Your task to perform on an android device: When is my next meeting? Image 0: 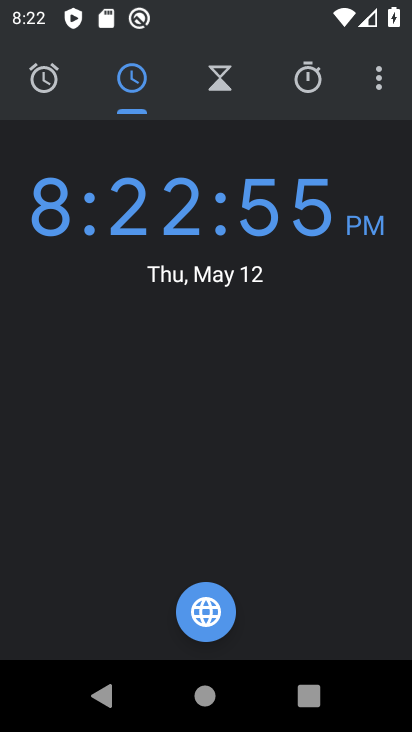
Step 0: press home button
Your task to perform on an android device: When is my next meeting? Image 1: 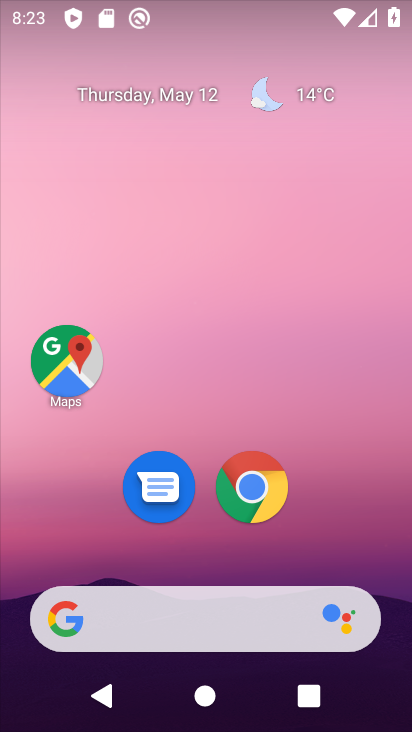
Step 1: drag from (22, 630) to (286, 123)
Your task to perform on an android device: When is my next meeting? Image 2: 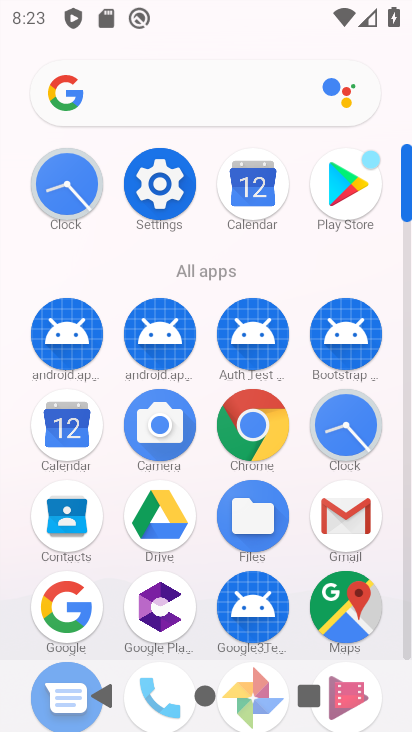
Step 2: click (255, 206)
Your task to perform on an android device: When is my next meeting? Image 3: 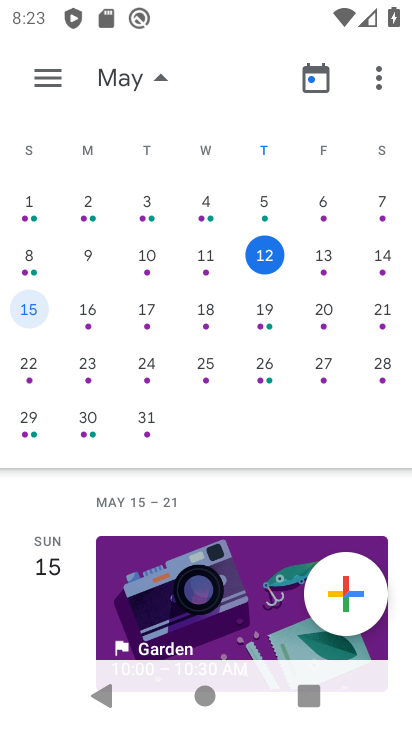
Step 3: click (40, 75)
Your task to perform on an android device: When is my next meeting? Image 4: 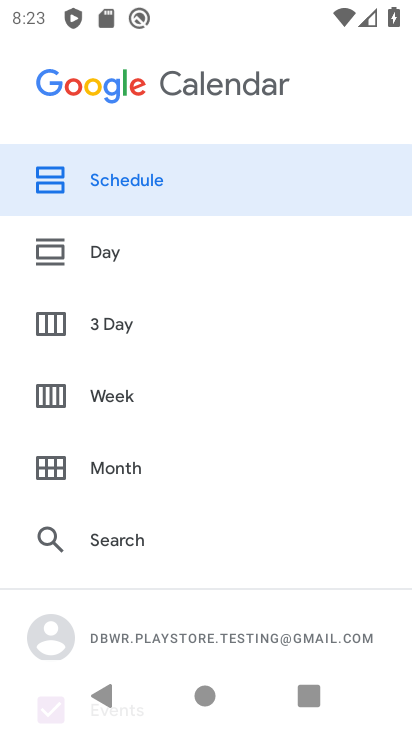
Step 4: drag from (126, 633) to (262, 136)
Your task to perform on an android device: When is my next meeting? Image 5: 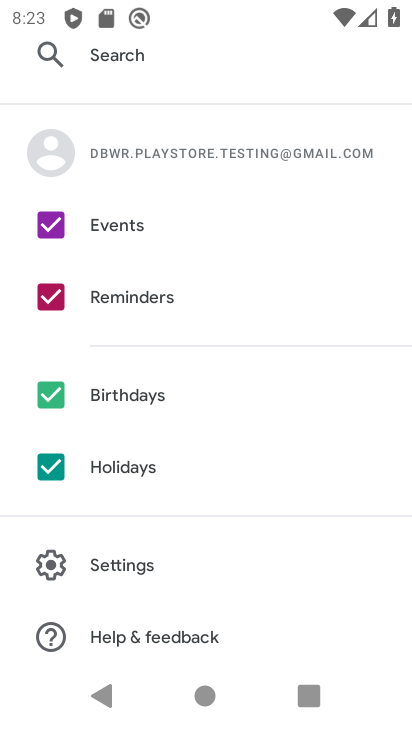
Step 5: drag from (158, 149) to (211, 518)
Your task to perform on an android device: When is my next meeting? Image 6: 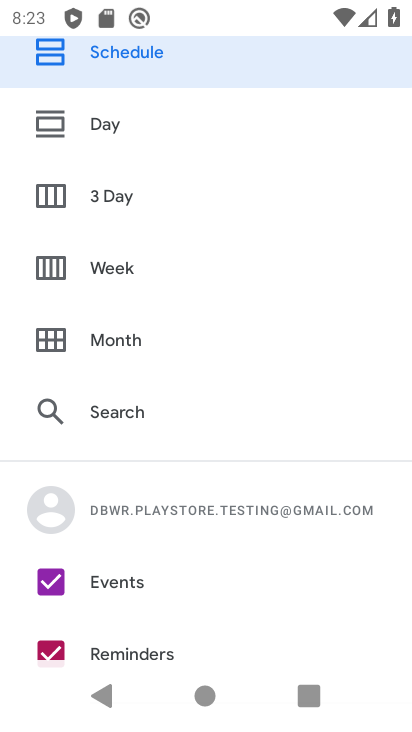
Step 6: drag from (209, 133) to (165, 661)
Your task to perform on an android device: When is my next meeting? Image 7: 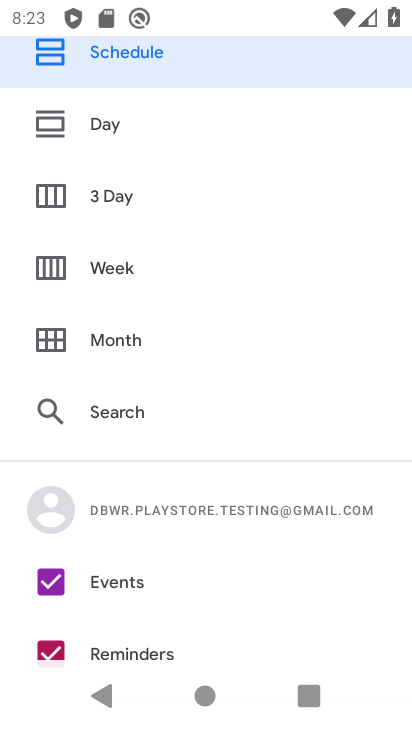
Step 7: click (169, 272)
Your task to perform on an android device: When is my next meeting? Image 8: 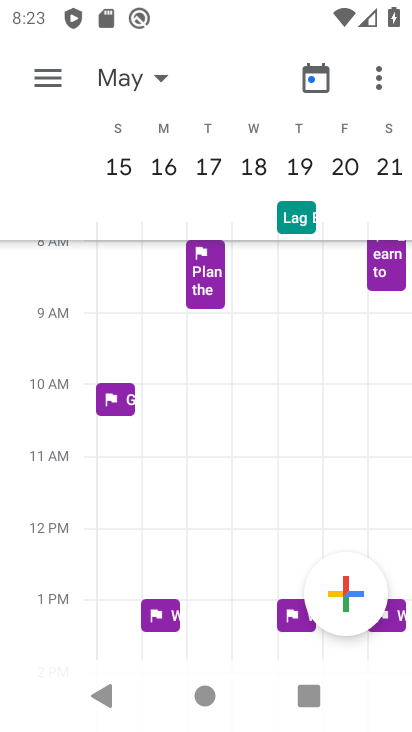
Step 8: task complete